Your task to perform on an android device: turn on improve location accuracy Image 0: 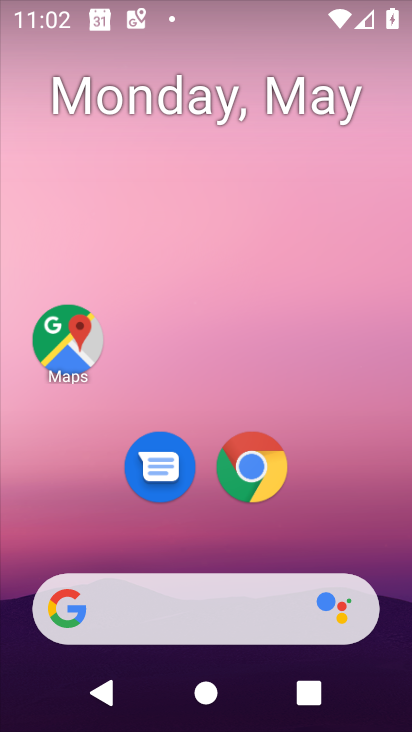
Step 0: drag from (385, 565) to (274, 0)
Your task to perform on an android device: turn on improve location accuracy Image 1: 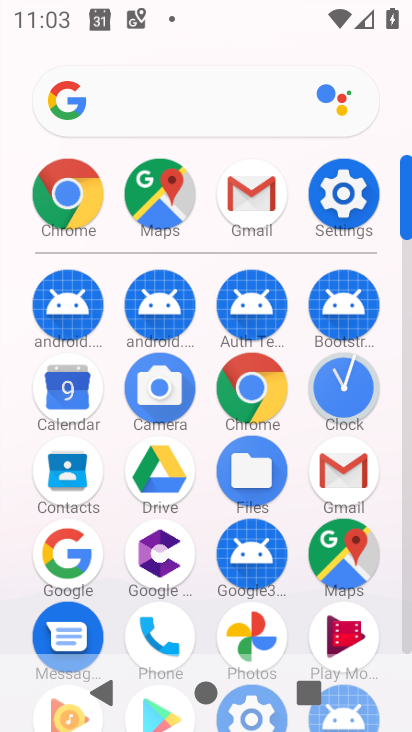
Step 1: click (339, 204)
Your task to perform on an android device: turn on improve location accuracy Image 2: 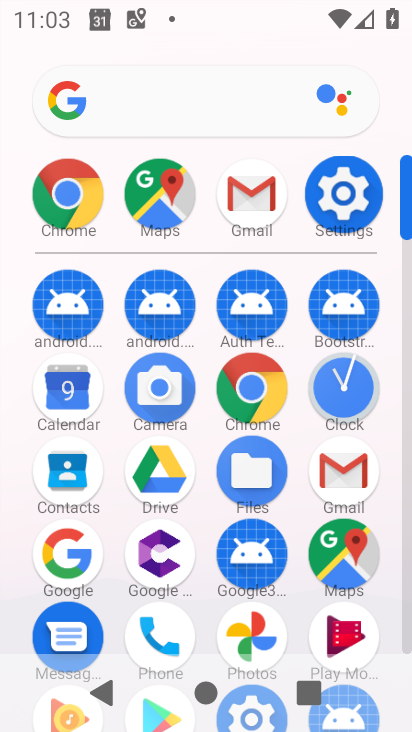
Step 2: click (339, 204)
Your task to perform on an android device: turn on improve location accuracy Image 3: 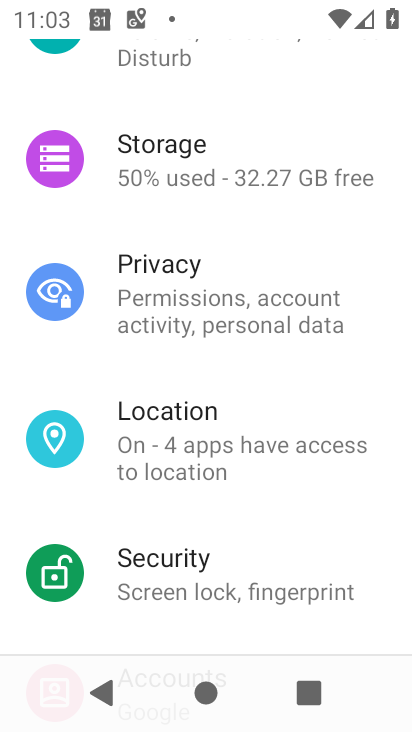
Step 3: click (188, 445)
Your task to perform on an android device: turn on improve location accuracy Image 4: 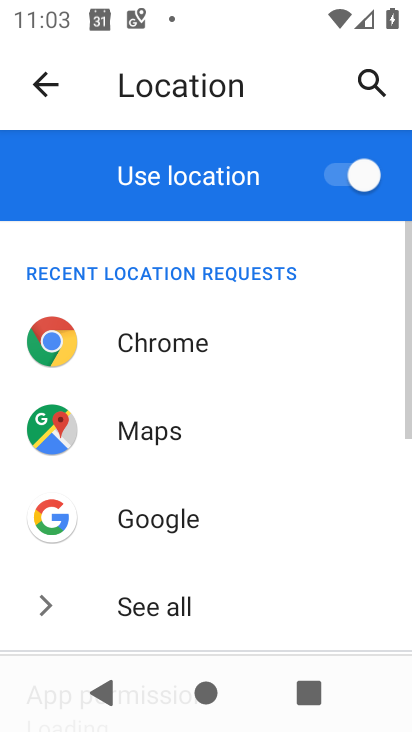
Step 4: drag from (240, 515) to (252, 69)
Your task to perform on an android device: turn on improve location accuracy Image 5: 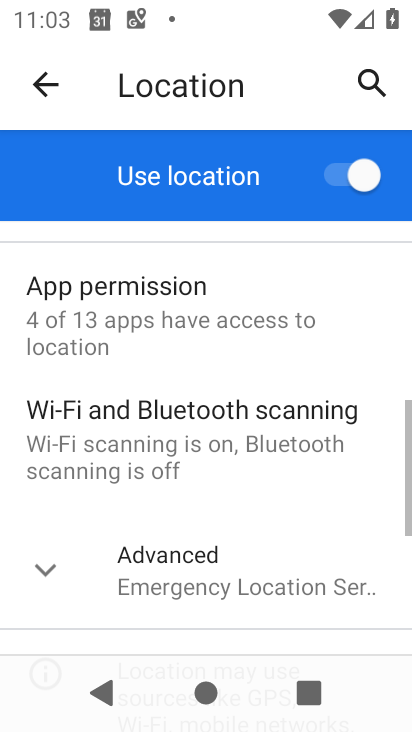
Step 5: drag from (242, 385) to (183, 34)
Your task to perform on an android device: turn on improve location accuracy Image 6: 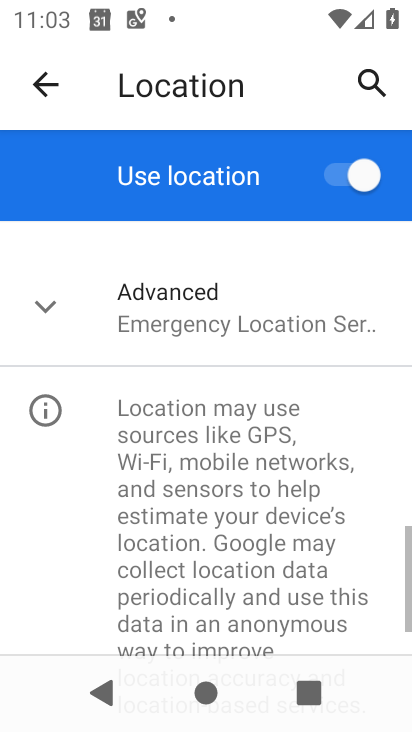
Step 6: drag from (237, 446) to (213, 101)
Your task to perform on an android device: turn on improve location accuracy Image 7: 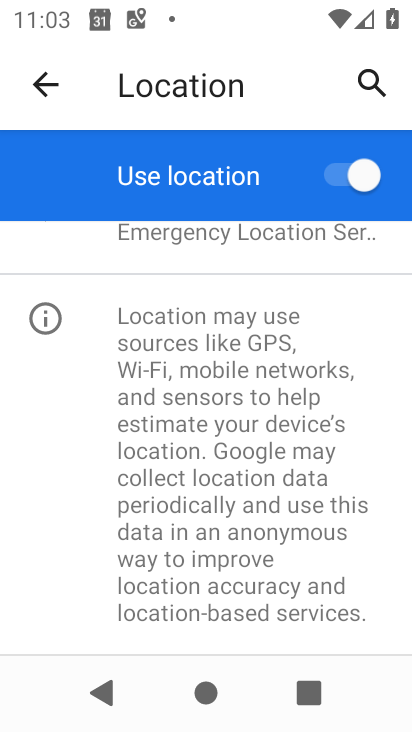
Step 7: drag from (229, 339) to (299, 544)
Your task to perform on an android device: turn on improve location accuracy Image 8: 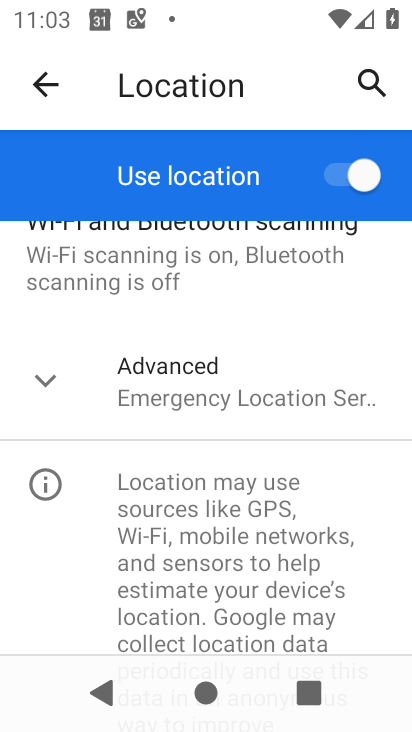
Step 8: click (191, 391)
Your task to perform on an android device: turn on improve location accuracy Image 9: 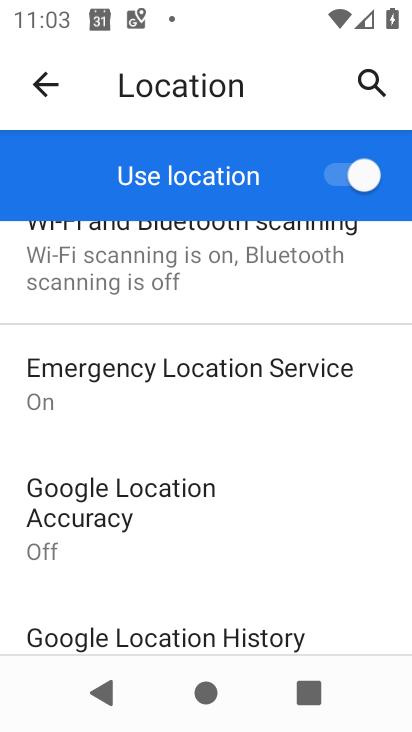
Step 9: click (79, 508)
Your task to perform on an android device: turn on improve location accuracy Image 10: 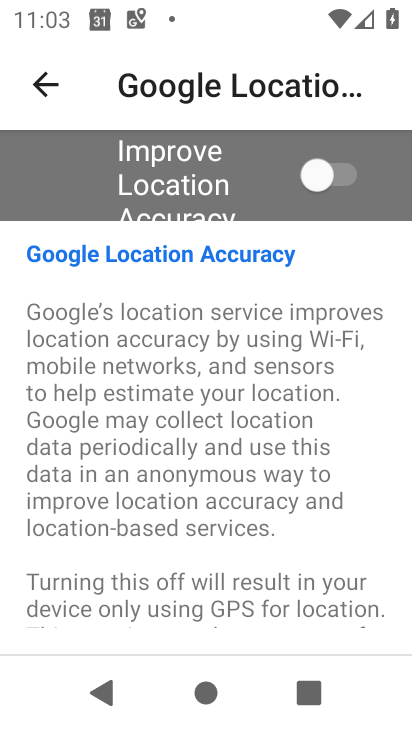
Step 10: click (317, 154)
Your task to perform on an android device: turn on improve location accuracy Image 11: 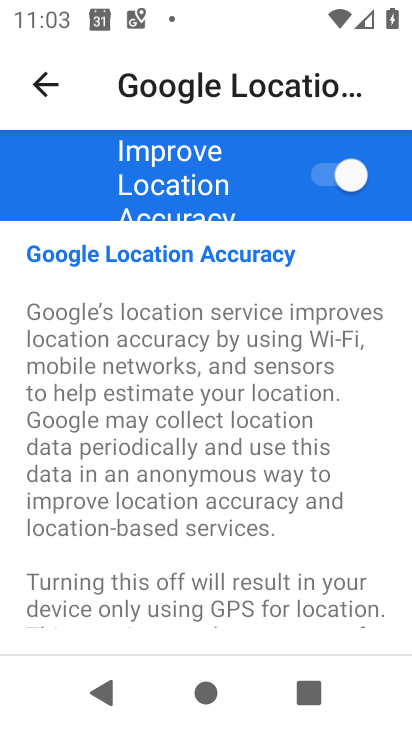
Step 11: task complete